Your task to perform on an android device: What's the weather going to be tomorrow? Image 0: 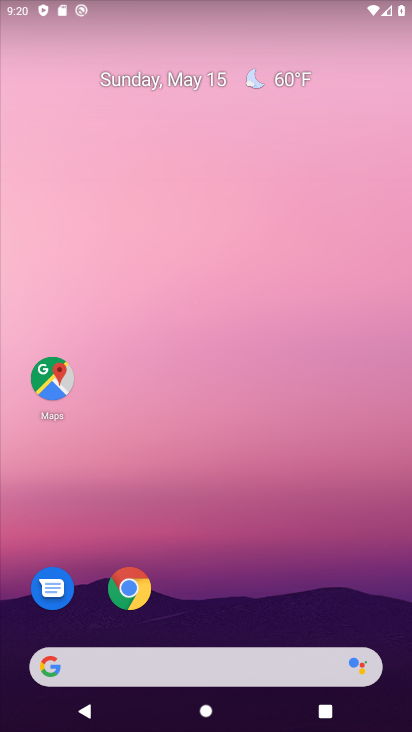
Step 0: click (288, 89)
Your task to perform on an android device: What's the weather going to be tomorrow? Image 1: 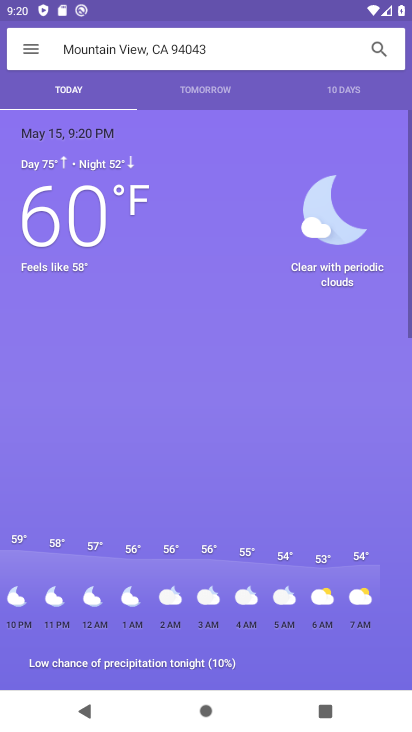
Step 1: click (203, 95)
Your task to perform on an android device: What's the weather going to be tomorrow? Image 2: 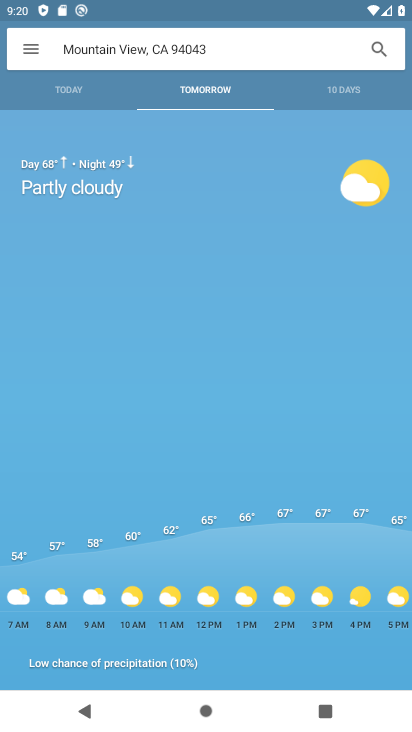
Step 2: task complete